Your task to perform on an android device: What's on my calendar today? Image 0: 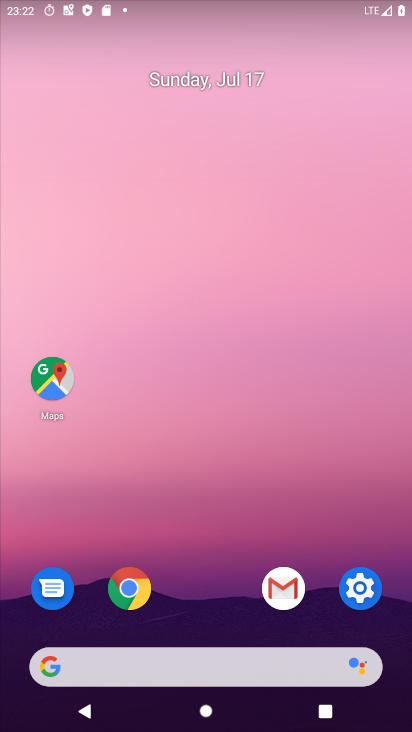
Step 0: drag from (244, 684) to (199, 131)
Your task to perform on an android device: What's on my calendar today? Image 1: 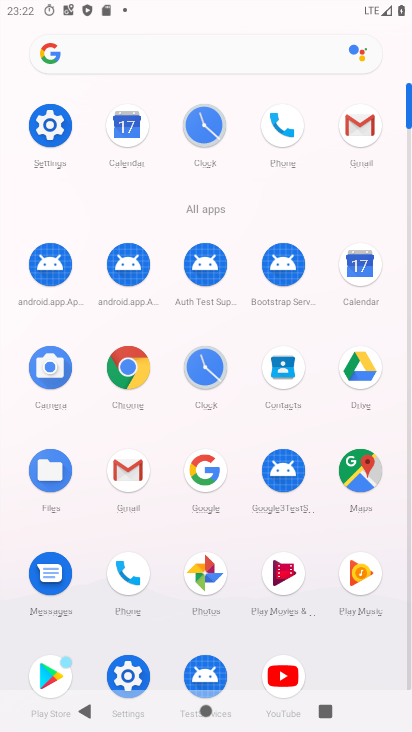
Step 1: click (351, 273)
Your task to perform on an android device: What's on my calendar today? Image 2: 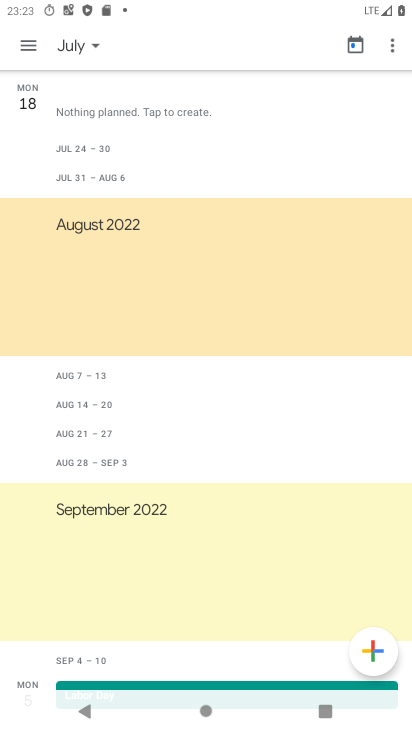
Step 2: click (18, 44)
Your task to perform on an android device: What's on my calendar today? Image 3: 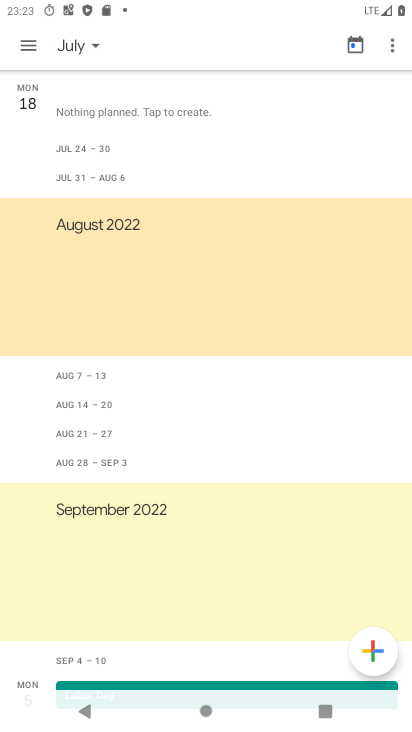
Step 3: click (25, 39)
Your task to perform on an android device: What's on my calendar today? Image 4: 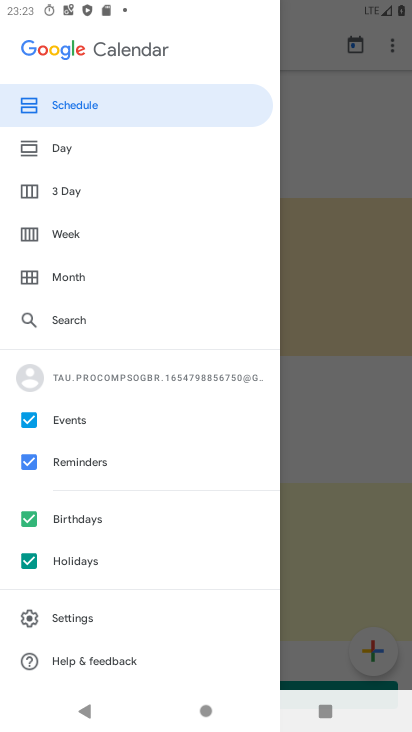
Step 4: click (70, 275)
Your task to perform on an android device: What's on my calendar today? Image 5: 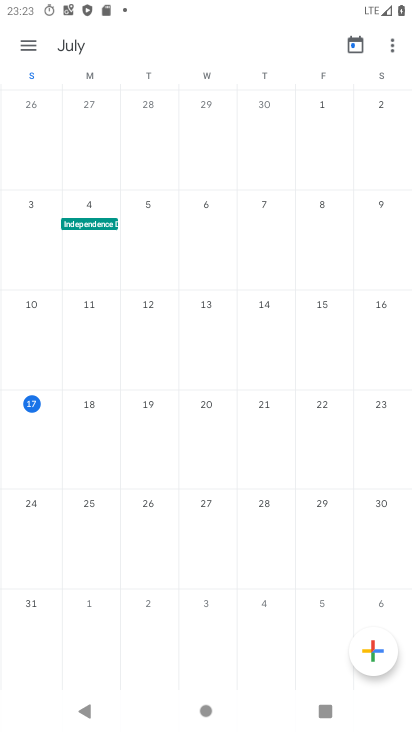
Step 5: click (37, 404)
Your task to perform on an android device: What's on my calendar today? Image 6: 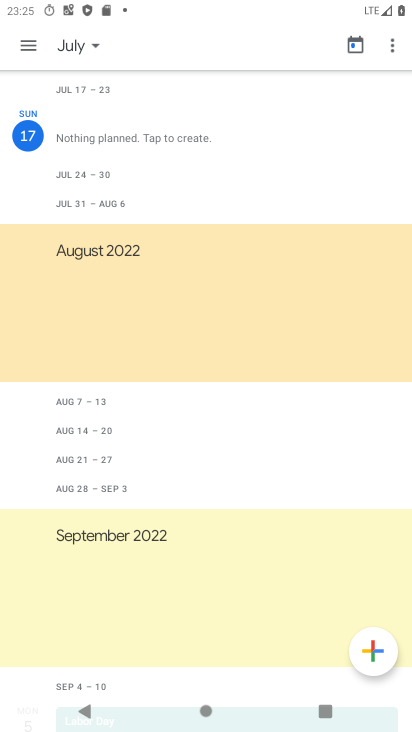
Step 6: task complete